Your task to perform on an android device: Go to calendar. Show me events next week Image 0: 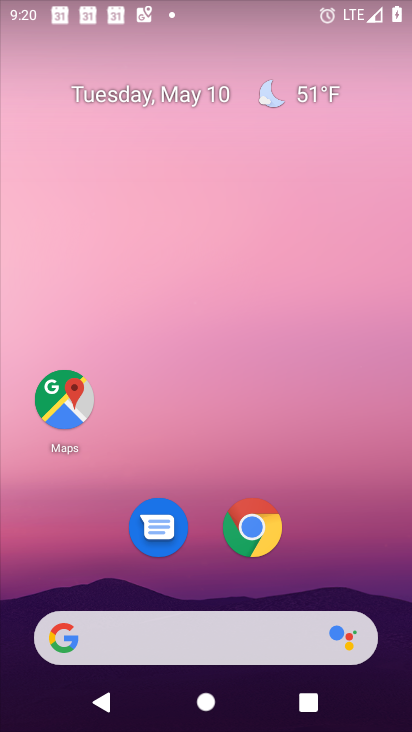
Step 0: drag from (229, 624) to (295, 7)
Your task to perform on an android device: Go to calendar. Show me events next week Image 1: 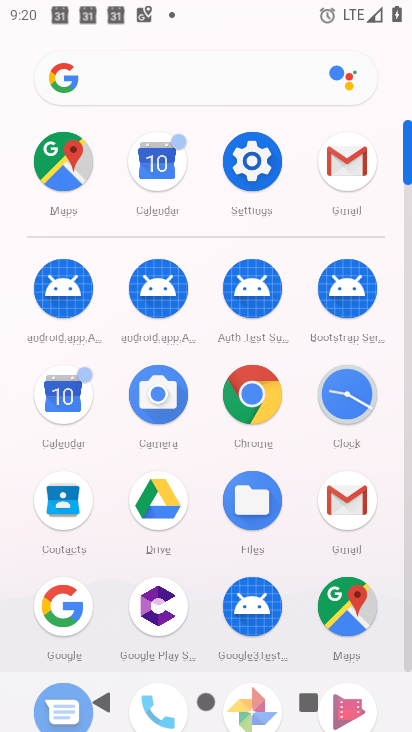
Step 1: click (56, 404)
Your task to perform on an android device: Go to calendar. Show me events next week Image 2: 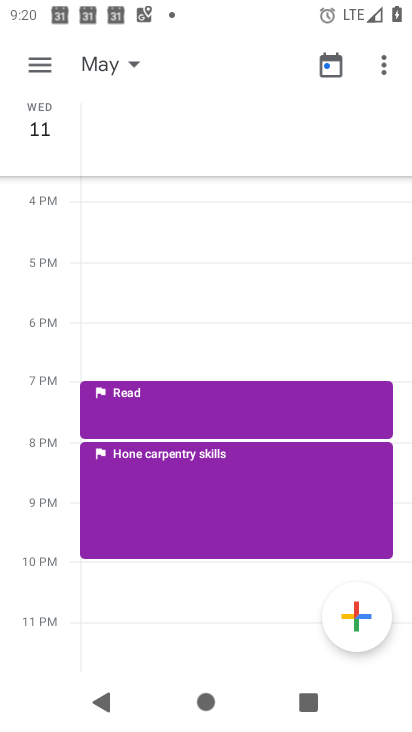
Step 2: click (40, 66)
Your task to perform on an android device: Go to calendar. Show me events next week Image 3: 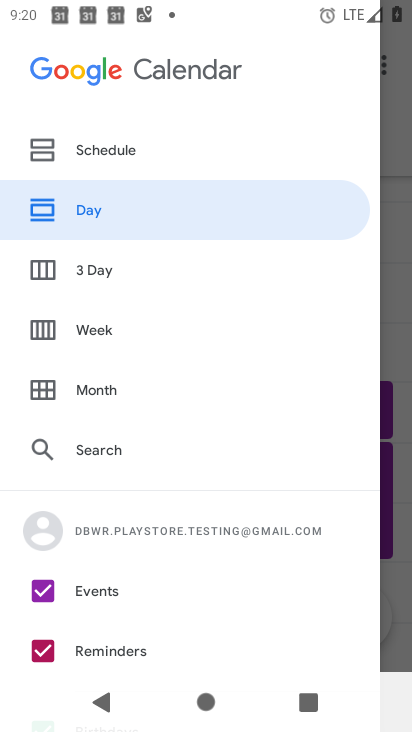
Step 3: click (99, 333)
Your task to perform on an android device: Go to calendar. Show me events next week Image 4: 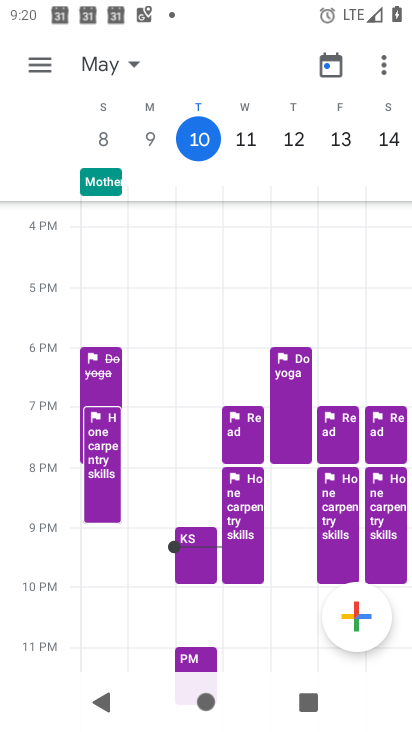
Step 4: task complete